Your task to perform on an android device: Turn on the flashlight Image 0: 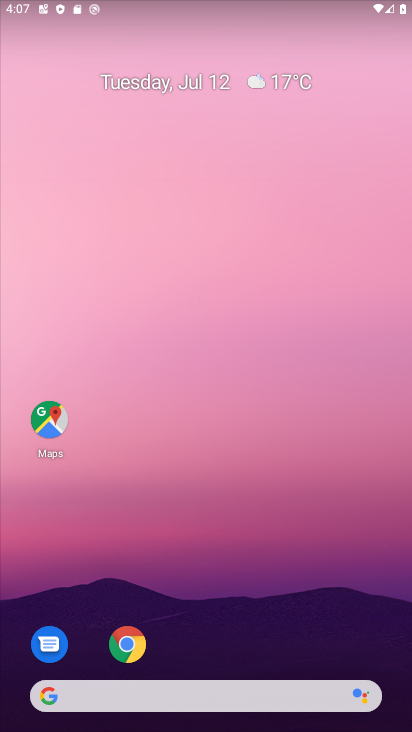
Step 0: drag from (337, 4) to (322, 570)
Your task to perform on an android device: Turn on the flashlight Image 1: 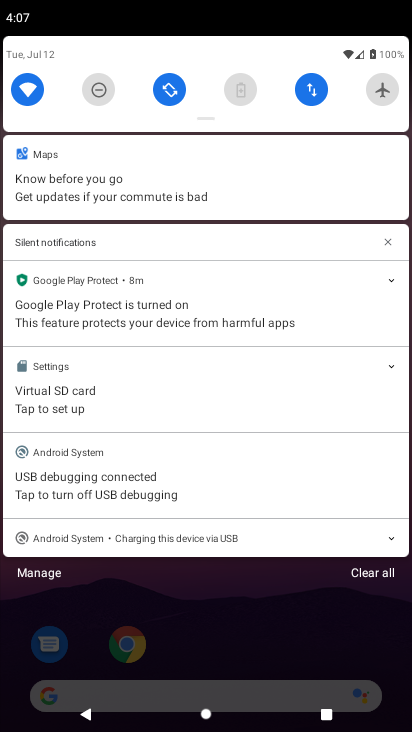
Step 1: task complete